Your task to perform on an android device: Do I have any events this weekend? Image 0: 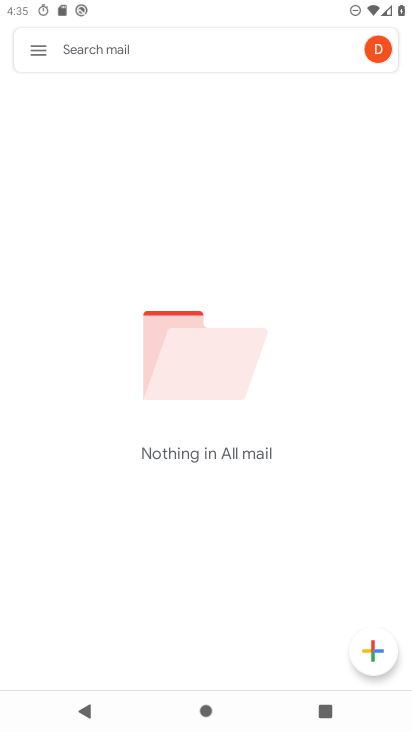
Step 0: press home button
Your task to perform on an android device: Do I have any events this weekend? Image 1: 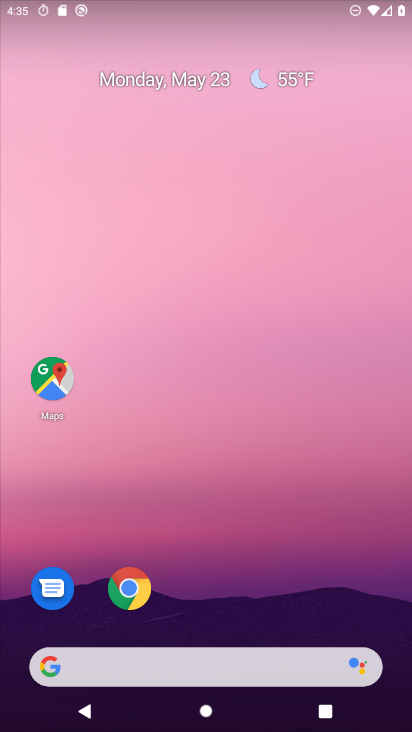
Step 1: drag from (265, 567) to (275, 91)
Your task to perform on an android device: Do I have any events this weekend? Image 2: 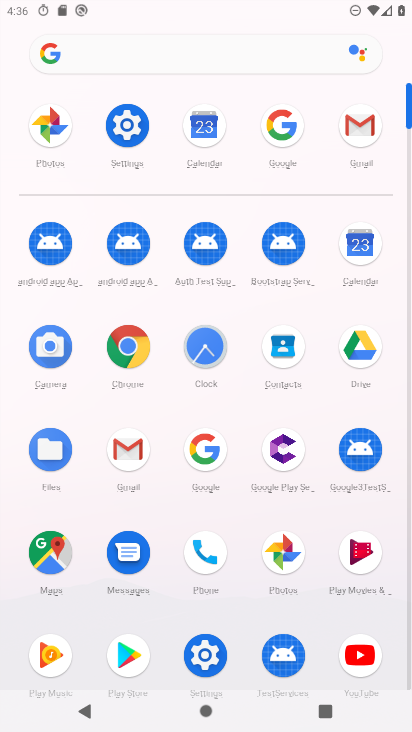
Step 2: click (356, 237)
Your task to perform on an android device: Do I have any events this weekend? Image 3: 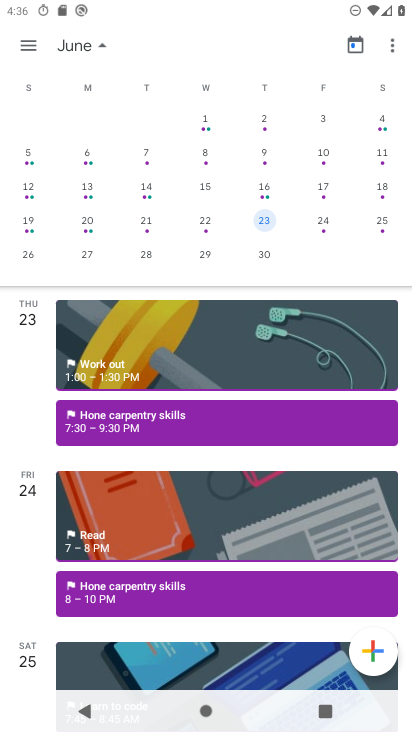
Step 3: click (323, 225)
Your task to perform on an android device: Do I have any events this weekend? Image 4: 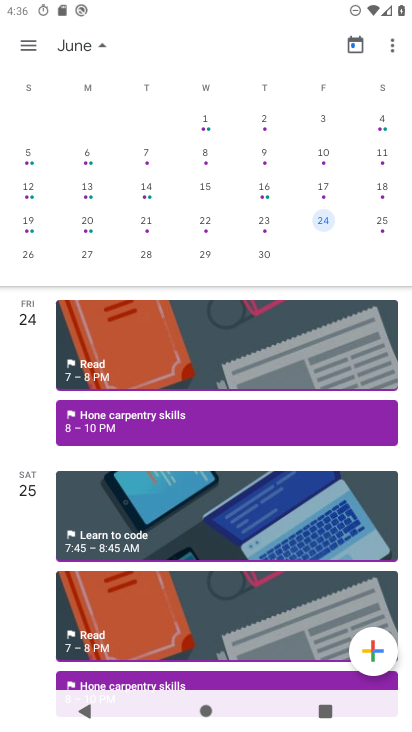
Step 4: drag from (39, 270) to (411, 245)
Your task to perform on an android device: Do I have any events this weekend? Image 5: 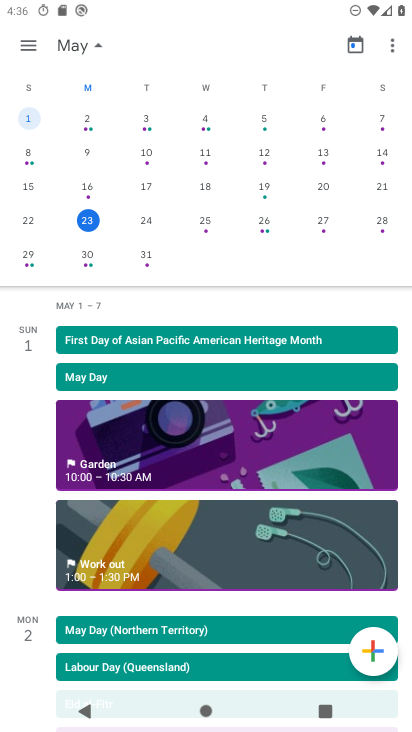
Step 5: drag from (322, 179) to (351, 283)
Your task to perform on an android device: Do I have any events this weekend? Image 6: 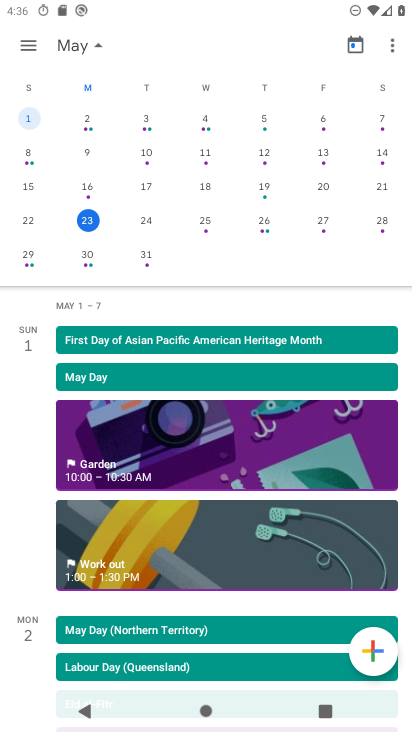
Step 6: click (199, 219)
Your task to perform on an android device: Do I have any events this weekend? Image 7: 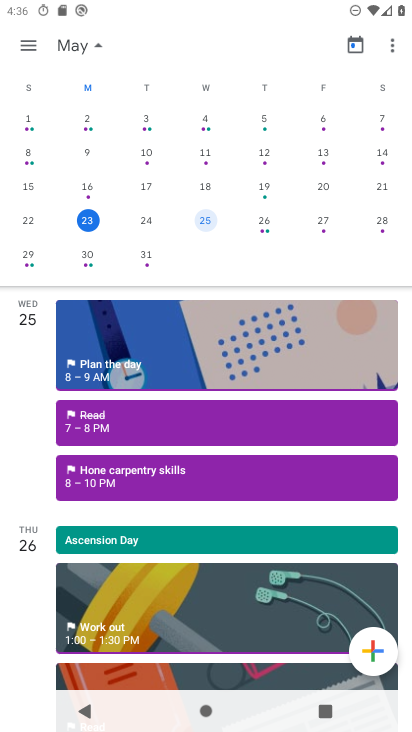
Step 7: task complete